Your task to perform on an android device: Open the calendar app, open the side menu, and click the "Day" option Image 0: 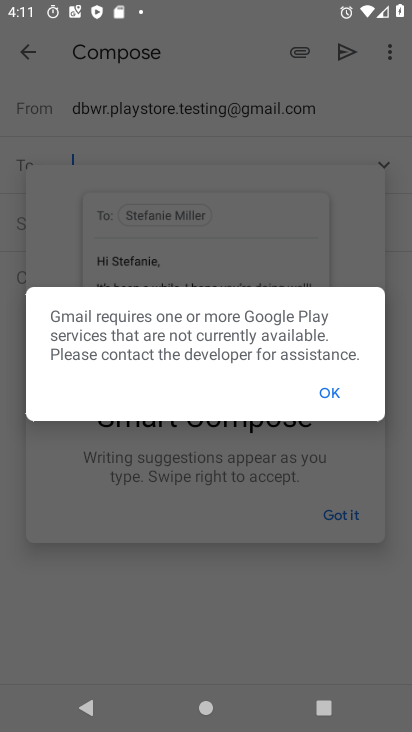
Step 0: press home button
Your task to perform on an android device: Open the calendar app, open the side menu, and click the "Day" option Image 1: 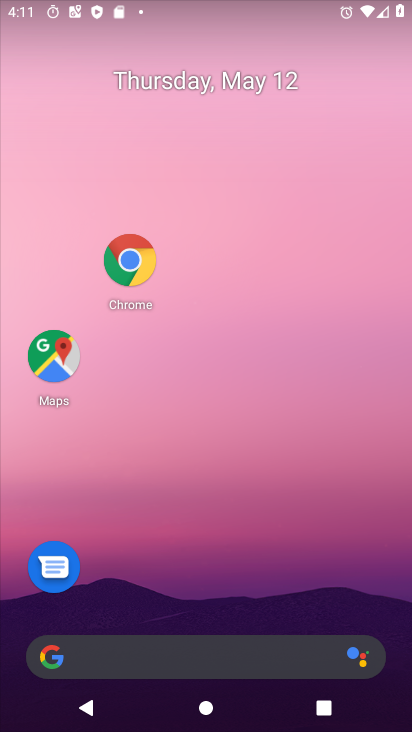
Step 1: drag from (207, 638) to (269, 187)
Your task to perform on an android device: Open the calendar app, open the side menu, and click the "Day" option Image 2: 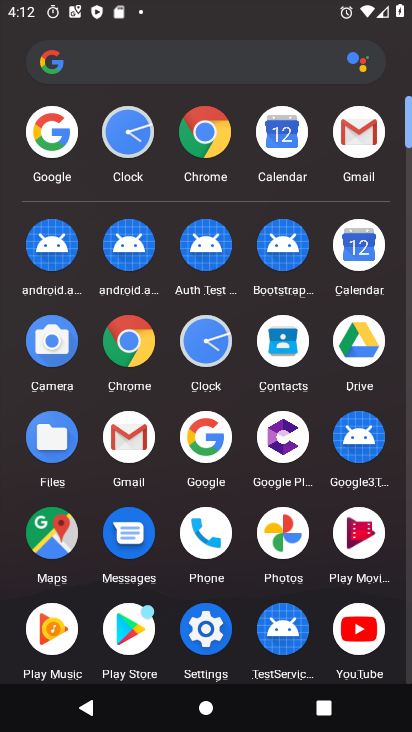
Step 2: click (354, 258)
Your task to perform on an android device: Open the calendar app, open the side menu, and click the "Day" option Image 3: 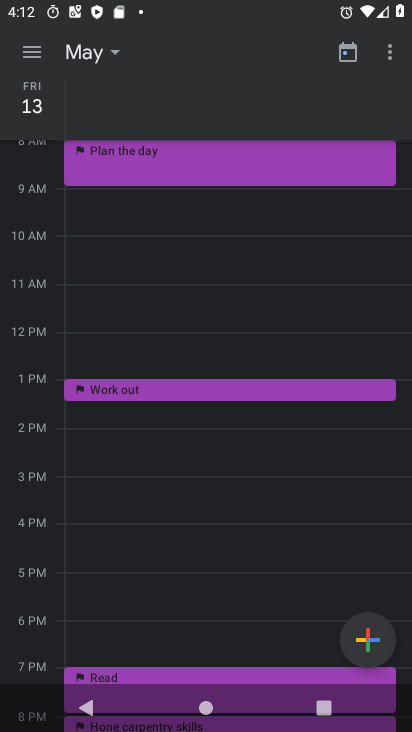
Step 3: click (32, 55)
Your task to perform on an android device: Open the calendar app, open the side menu, and click the "Day" option Image 4: 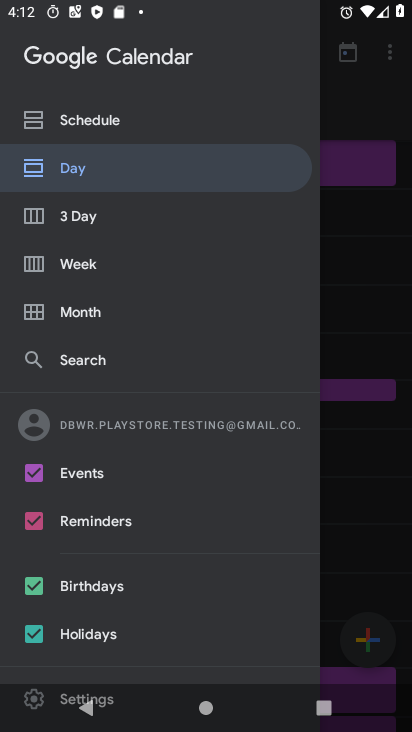
Step 4: click (75, 173)
Your task to perform on an android device: Open the calendar app, open the side menu, and click the "Day" option Image 5: 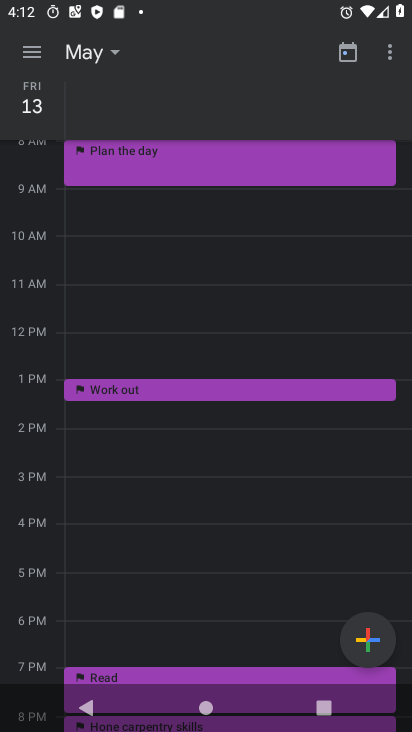
Step 5: task complete